Your task to perform on an android device: turn off notifications in google photos Image 0: 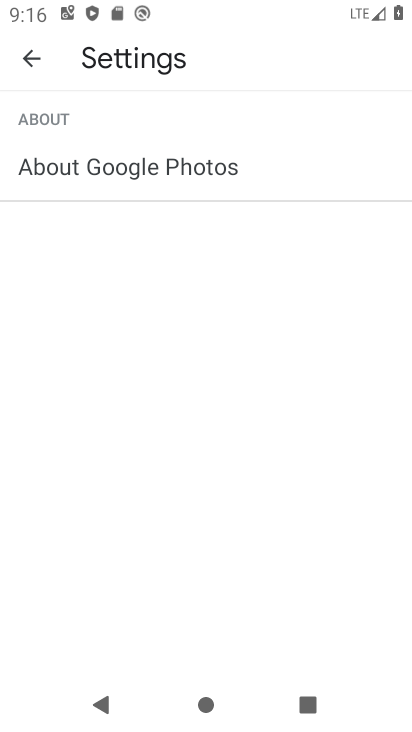
Step 0: press home button
Your task to perform on an android device: turn off notifications in google photos Image 1: 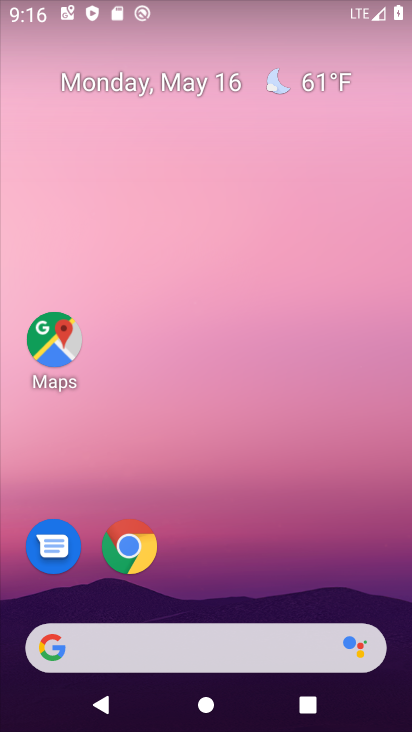
Step 1: drag from (303, 513) to (250, 55)
Your task to perform on an android device: turn off notifications in google photos Image 2: 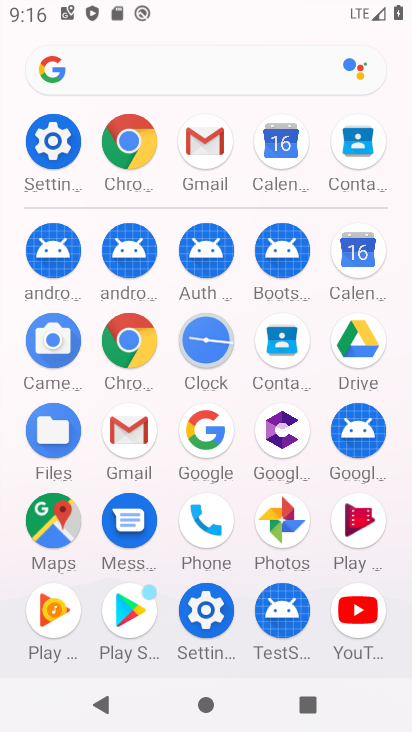
Step 2: click (278, 532)
Your task to perform on an android device: turn off notifications in google photos Image 3: 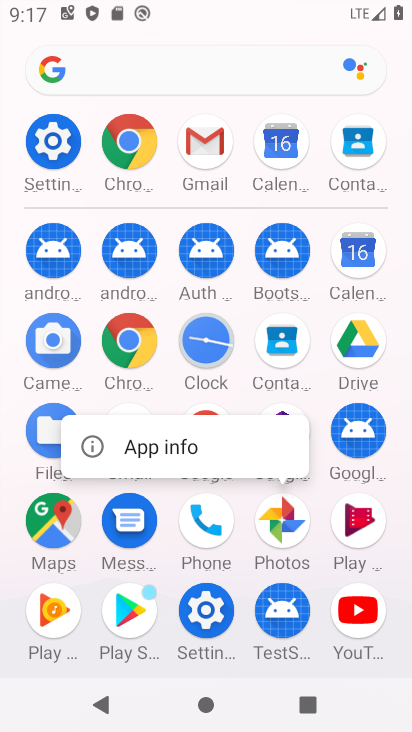
Step 3: click (155, 454)
Your task to perform on an android device: turn off notifications in google photos Image 4: 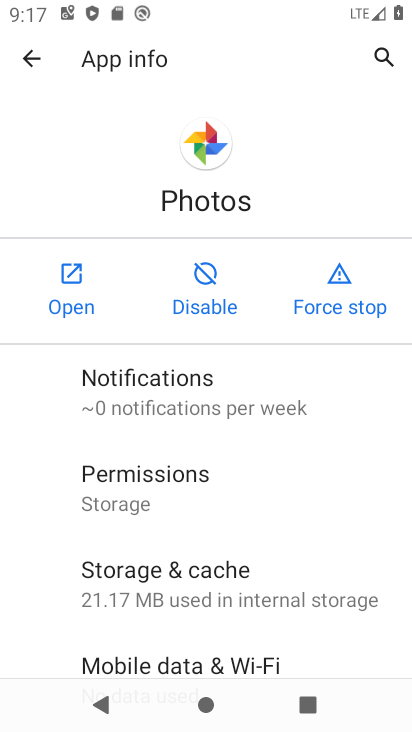
Step 4: click (171, 408)
Your task to perform on an android device: turn off notifications in google photos Image 5: 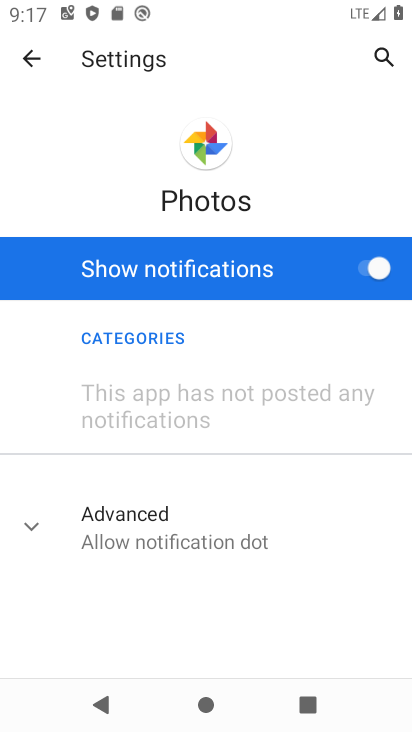
Step 5: click (378, 280)
Your task to perform on an android device: turn off notifications in google photos Image 6: 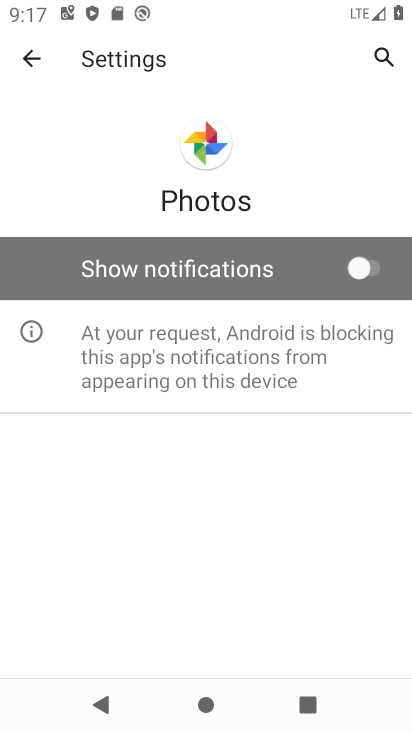
Step 6: task complete